Your task to perform on an android device: open chrome and create a bookmark for the current page Image 0: 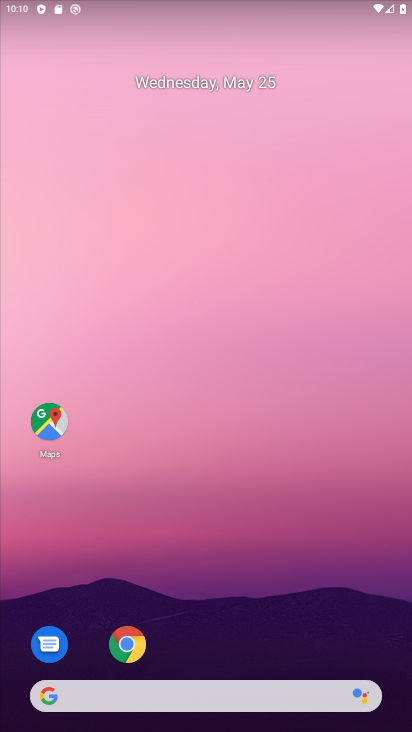
Step 0: click (128, 644)
Your task to perform on an android device: open chrome and create a bookmark for the current page Image 1: 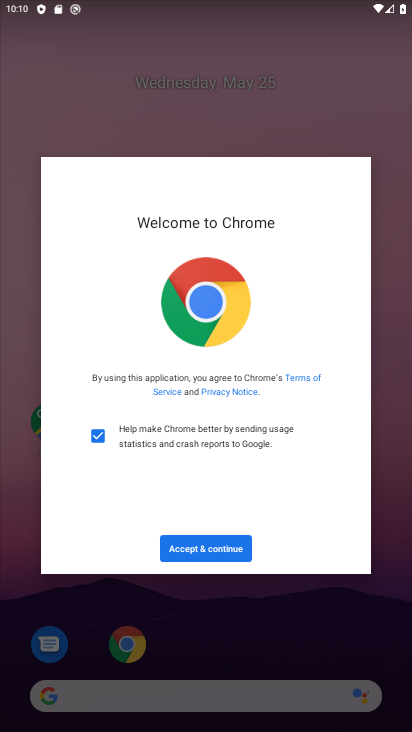
Step 1: click (211, 544)
Your task to perform on an android device: open chrome and create a bookmark for the current page Image 2: 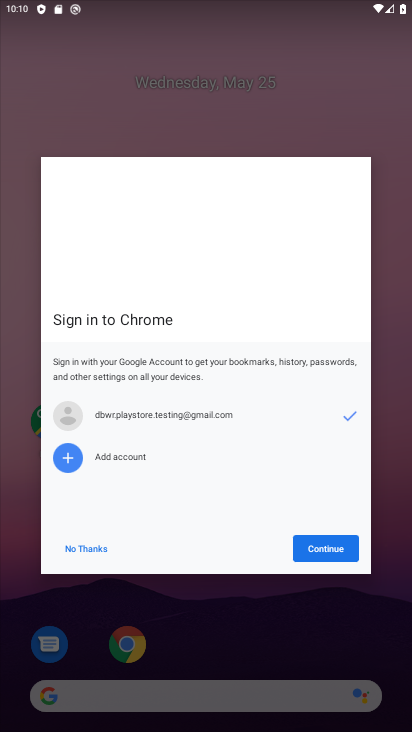
Step 2: click (318, 546)
Your task to perform on an android device: open chrome and create a bookmark for the current page Image 3: 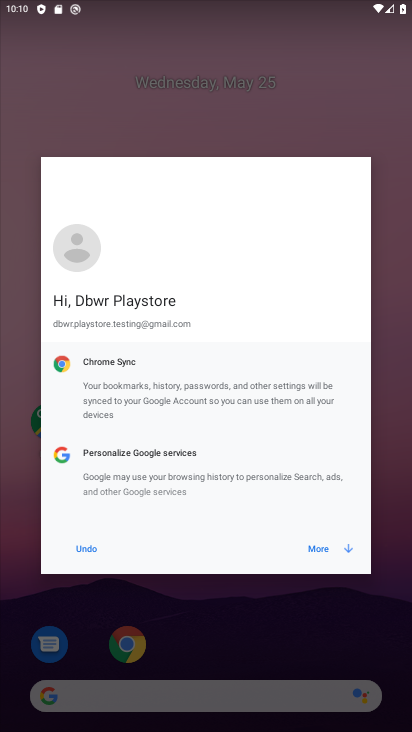
Step 3: click (345, 544)
Your task to perform on an android device: open chrome and create a bookmark for the current page Image 4: 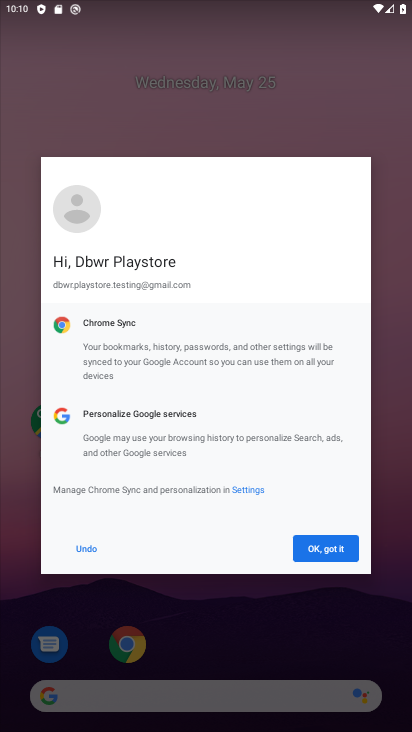
Step 4: click (326, 552)
Your task to perform on an android device: open chrome and create a bookmark for the current page Image 5: 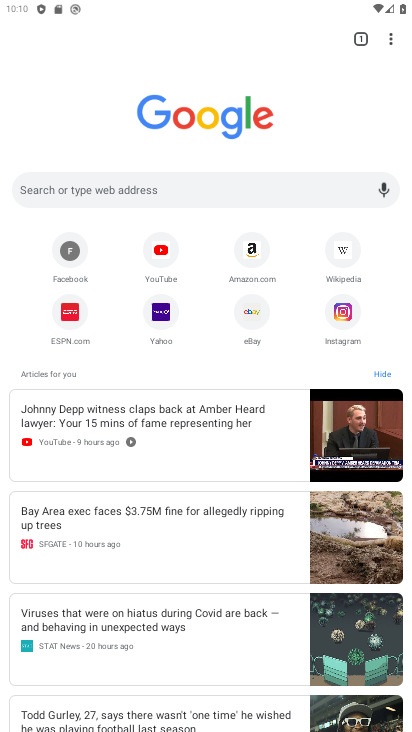
Step 5: click (388, 36)
Your task to perform on an android device: open chrome and create a bookmark for the current page Image 6: 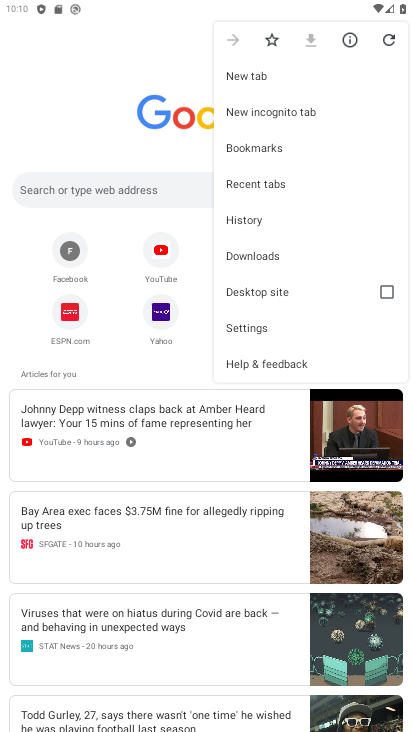
Step 6: click (272, 36)
Your task to perform on an android device: open chrome and create a bookmark for the current page Image 7: 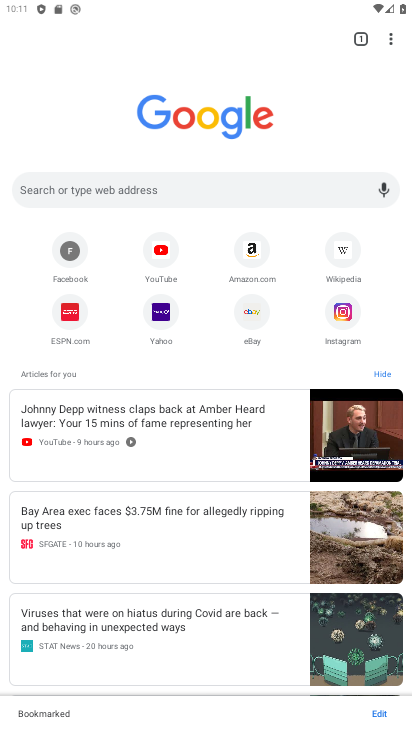
Step 7: task complete